Your task to perform on an android device: turn smart compose on in the gmail app Image 0: 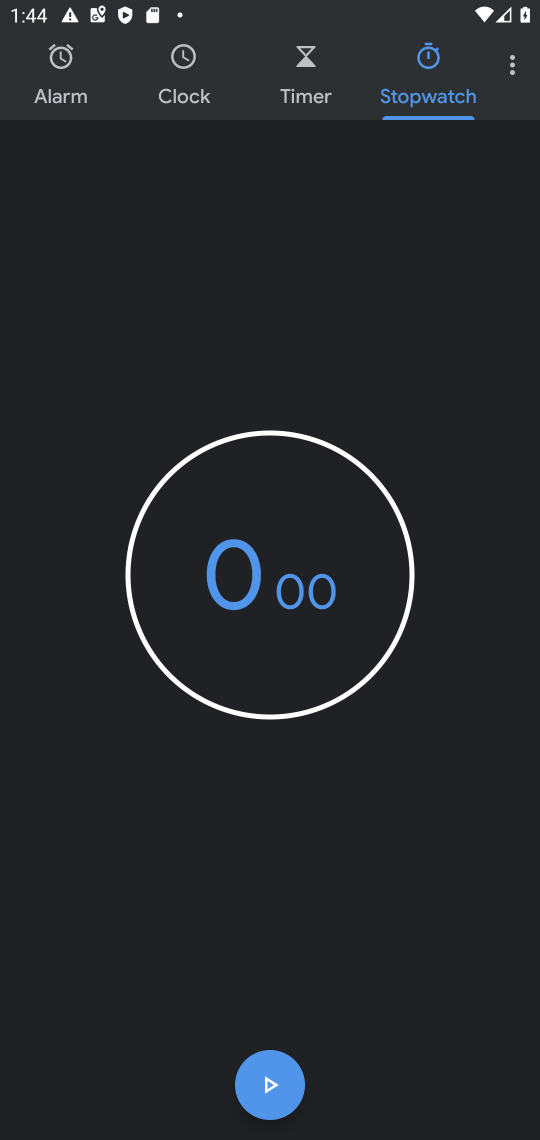
Step 0: press home button
Your task to perform on an android device: turn smart compose on in the gmail app Image 1: 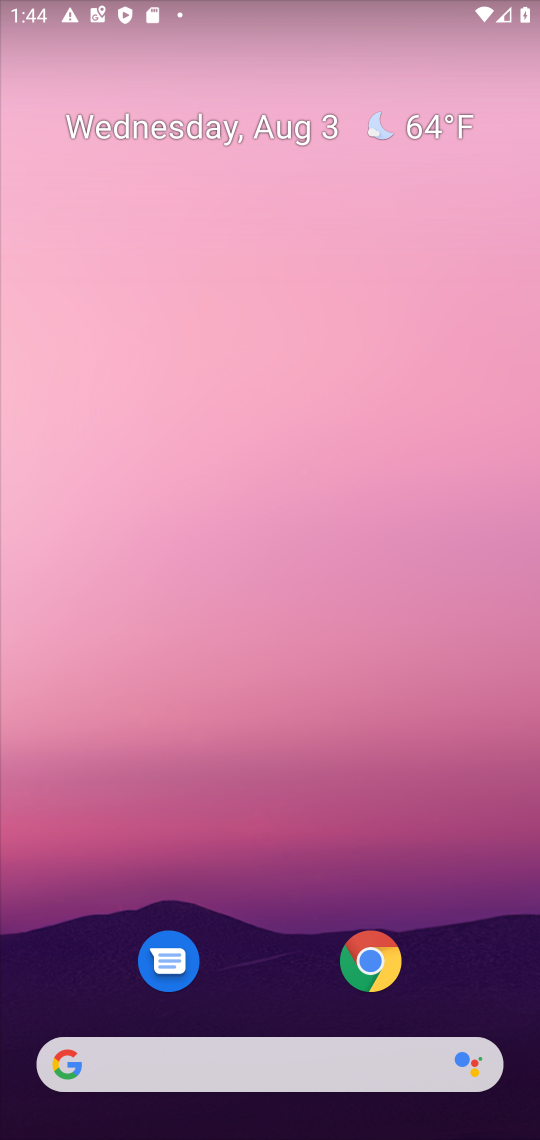
Step 1: drag from (271, 896) to (230, 14)
Your task to perform on an android device: turn smart compose on in the gmail app Image 2: 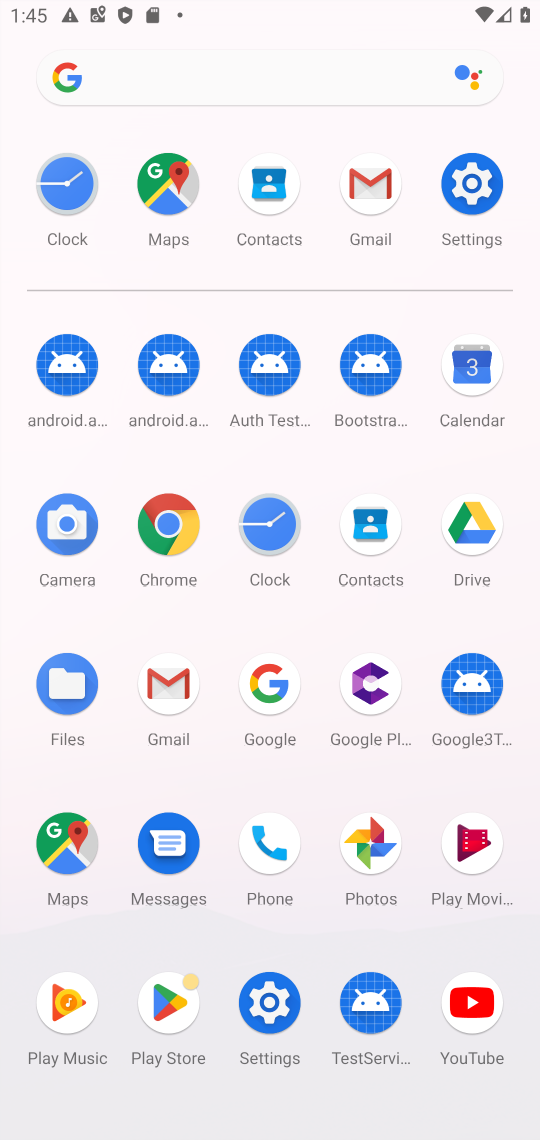
Step 2: click (374, 185)
Your task to perform on an android device: turn smart compose on in the gmail app Image 3: 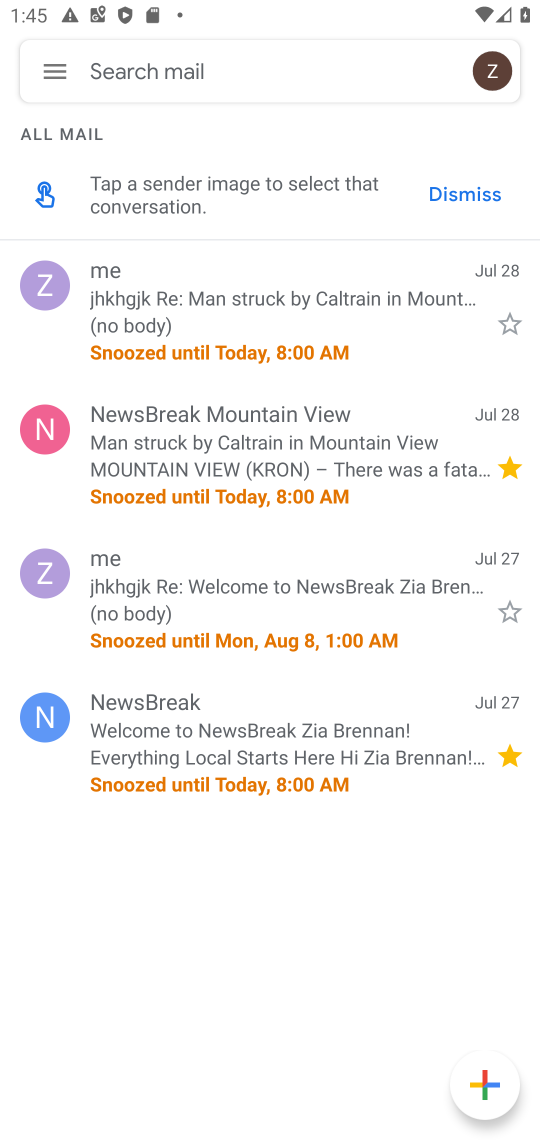
Step 3: click (66, 63)
Your task to perform on an android device: turn smart compose on in the gmail app Image 4: 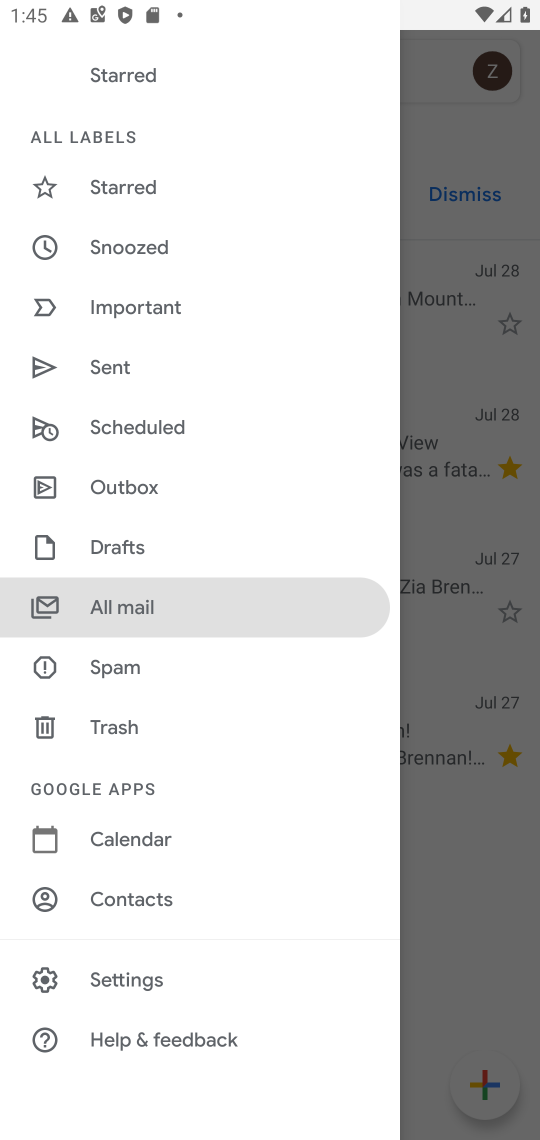
Step 4: click (128, 975)
Your task to perform on an android device: turn smart compose on in the gmail app Image 5: 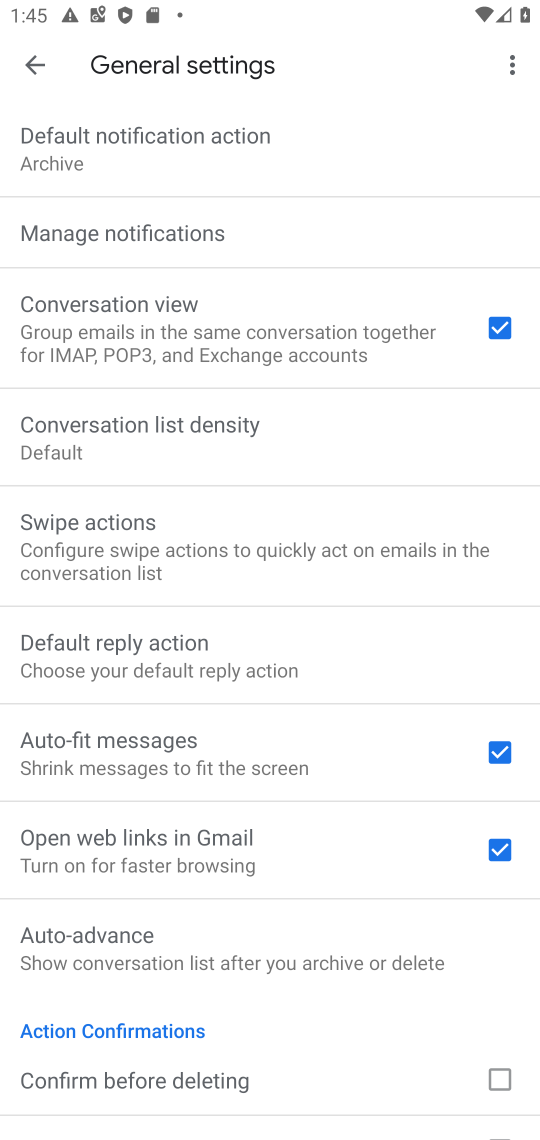
Step 5: click (32, 60)
Your task to perform on an android device: turn smart compose on in the gmail app Image 6: 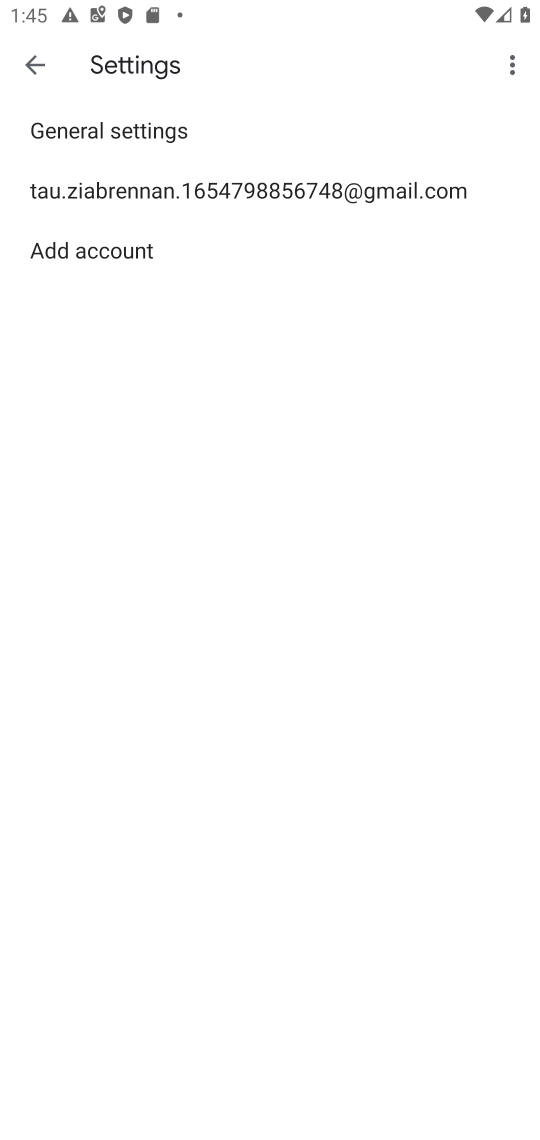
Step 6: click (130, 196)
Your task to perform on an android device: turn smart compose on in the gmail app Image 7: 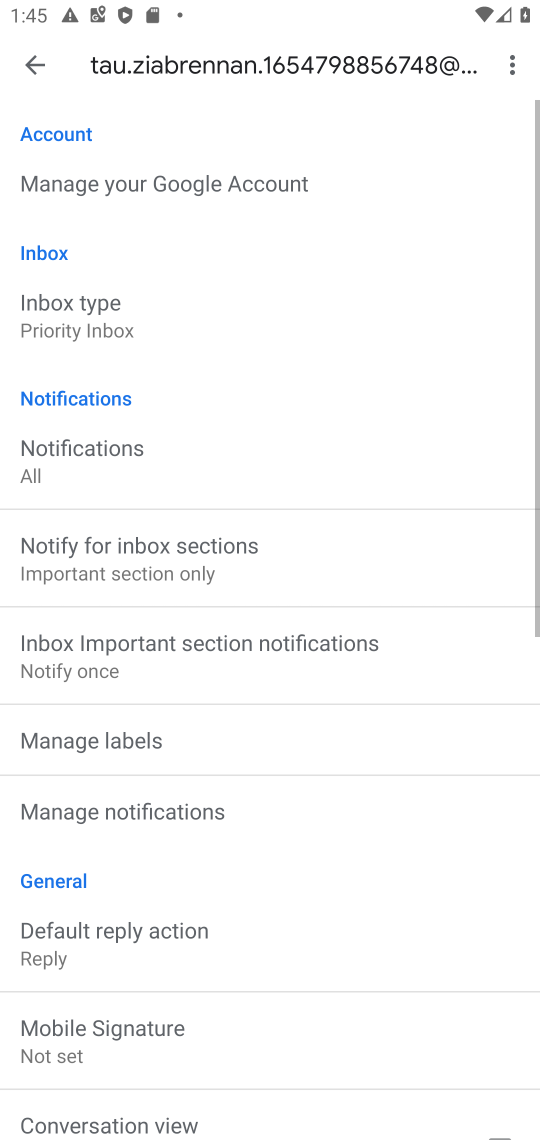
Step 7: task complete